Your task to perform on an android device: turn on sleep mode Image 0: 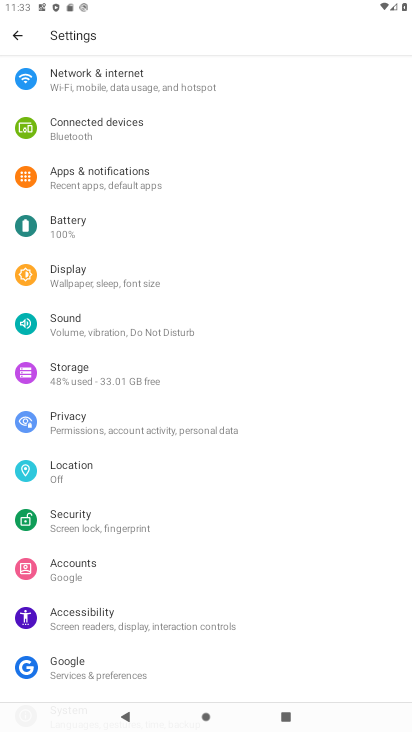
Step 0: click (115, 277)
Your task to perform on an android device: turn on sleep mode Image 1: 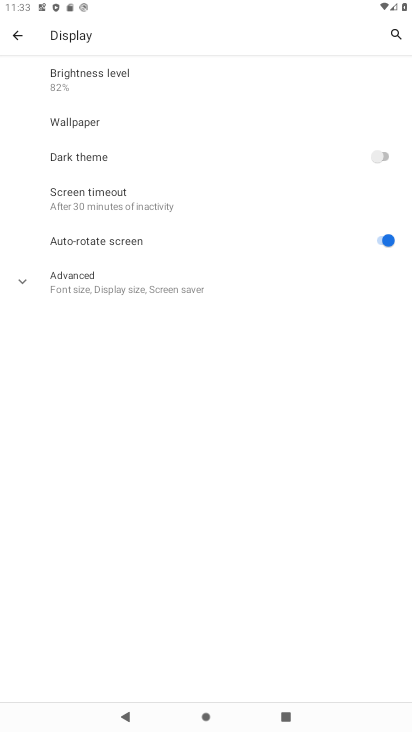
Step 1: click (123, 209)
Your task to perform on an android device: turn on sleep mode Image 2: 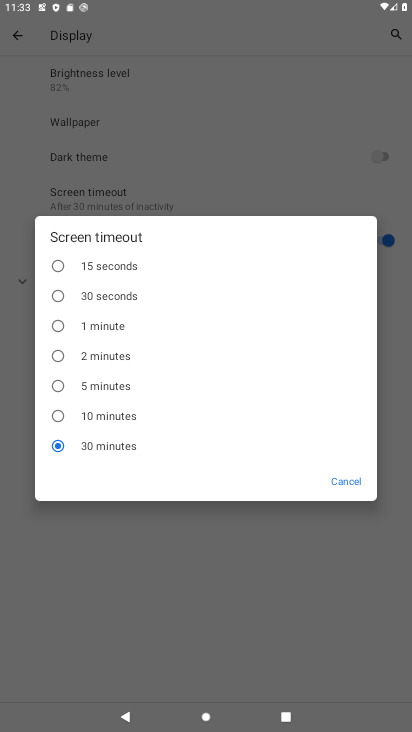
Step 2: click (88, 375)
Your task to perform on an android device: turn on sleep mode Image 3: 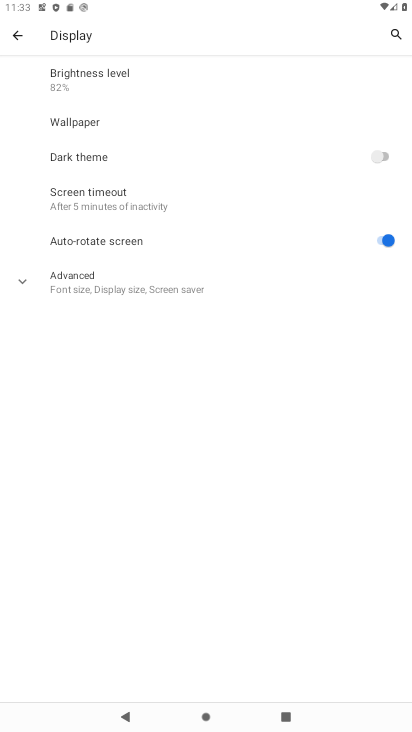
Step 3: task complete